Your task to perform on an android device: turn off location Image 0: 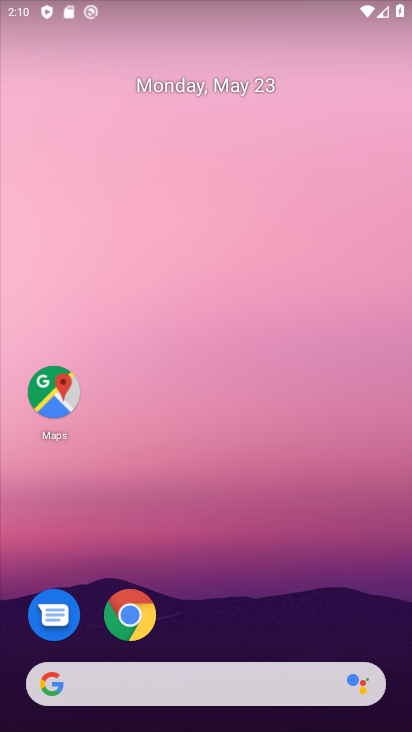
Step 0: drag from (248, 645) to (293, 13)
Your task to perform on an android device: turn off location Image 1: 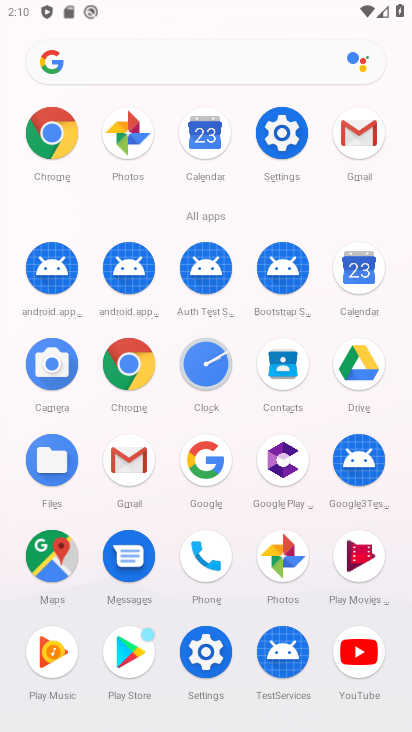
Step 1: click (284, 133)
Your task to perform on an android device: turn off location Image 2: 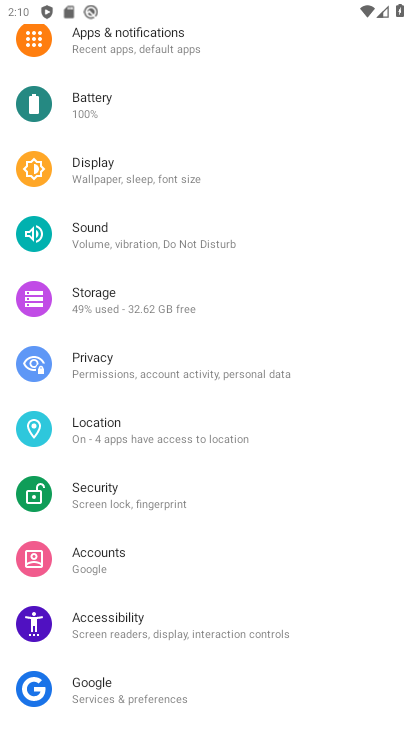
Step 2: click (86, 442)
Your task to perform on an android device: turn off location Image 3: 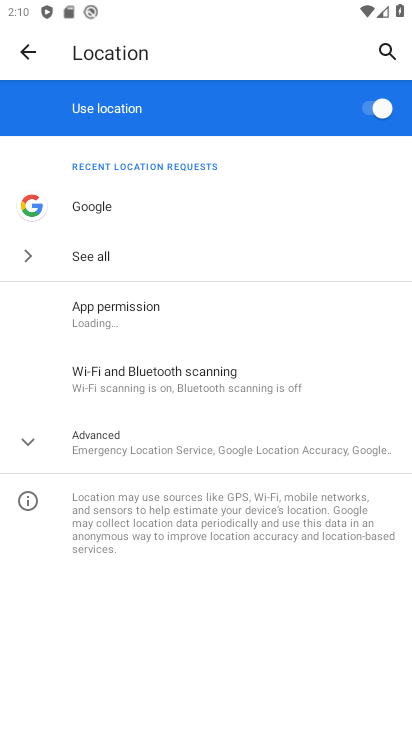
Step 3: click (386, 108)
Your task to perform on an android device: turn off location Image 4: 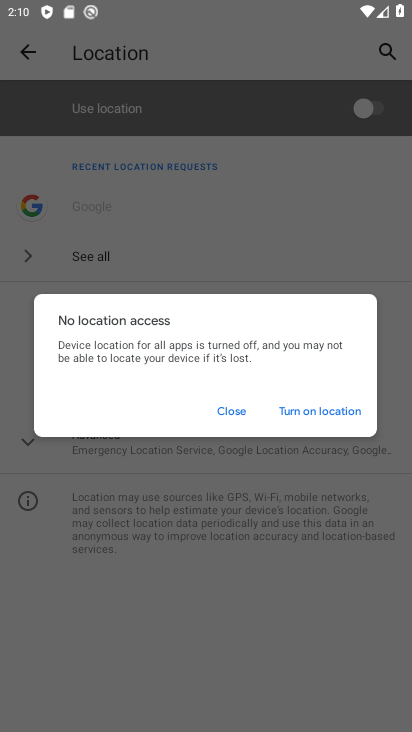
Step 4: click (227, 413)
Your task to perform on an android device: turn off location Image 5: 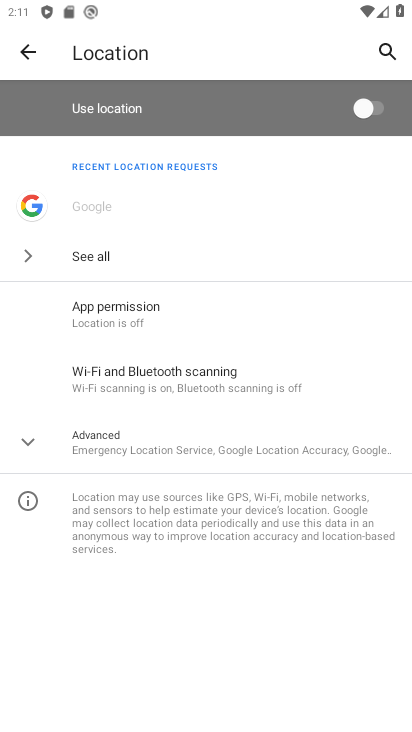
Step 5: task complete